Your task to perform on an android device: turn on wifi Image 0: 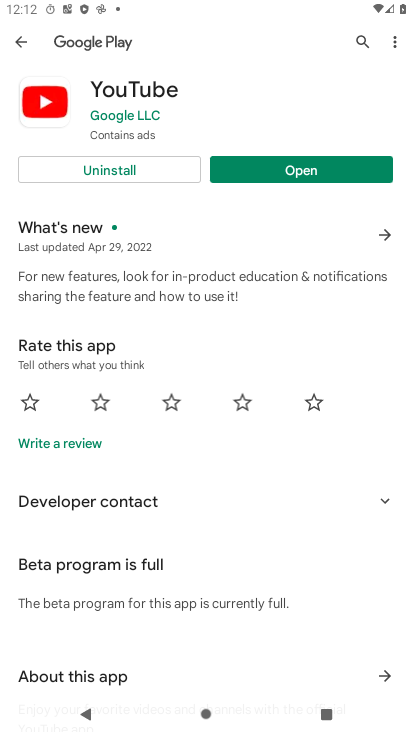
Step 0: press home button
Your task to perform on an android device: turn on wifi Image 1: 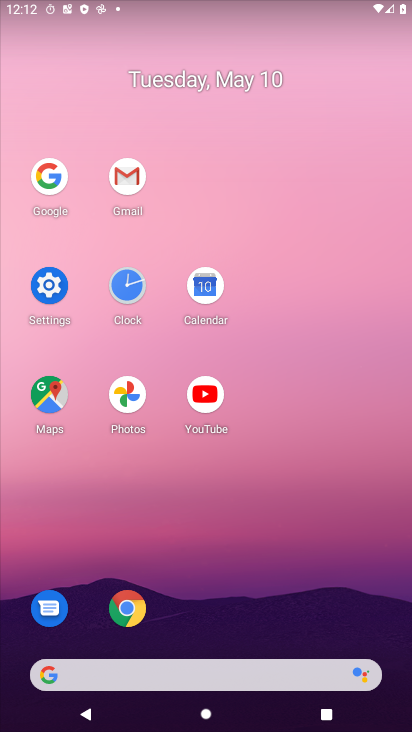
Step 1: click (48, 290)
Your task to perform on an android device: turn on wifi Image 2: 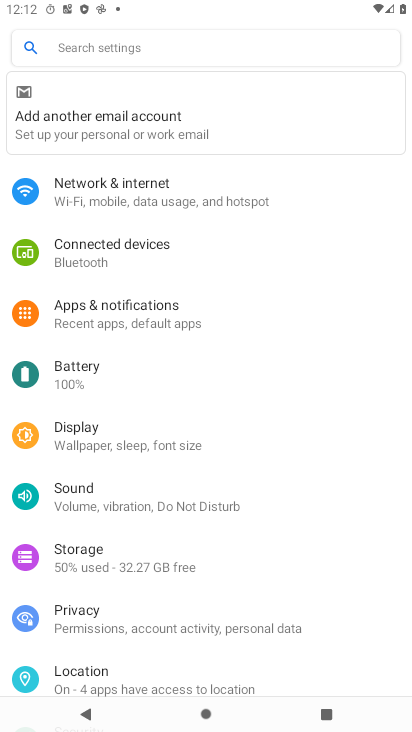
Step 2: click (158, 210)
Your task to perform on an android device: turn on wifi Image 3: 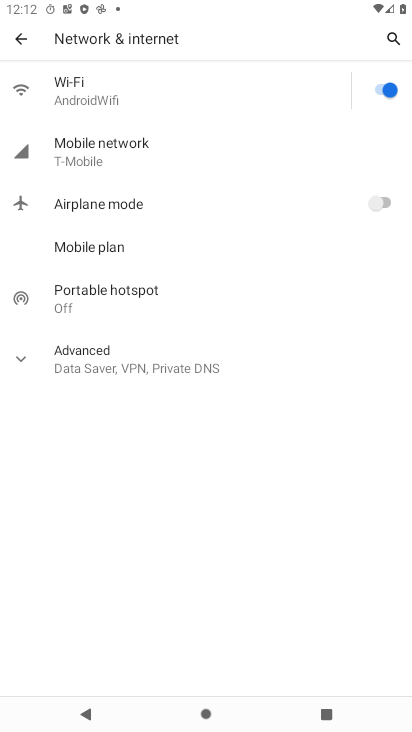
Step 3: task complete